Your task to perform on an android device: open app "Yahoo Mail" (install if not already installed), go to login, and select forgot password Image 0: 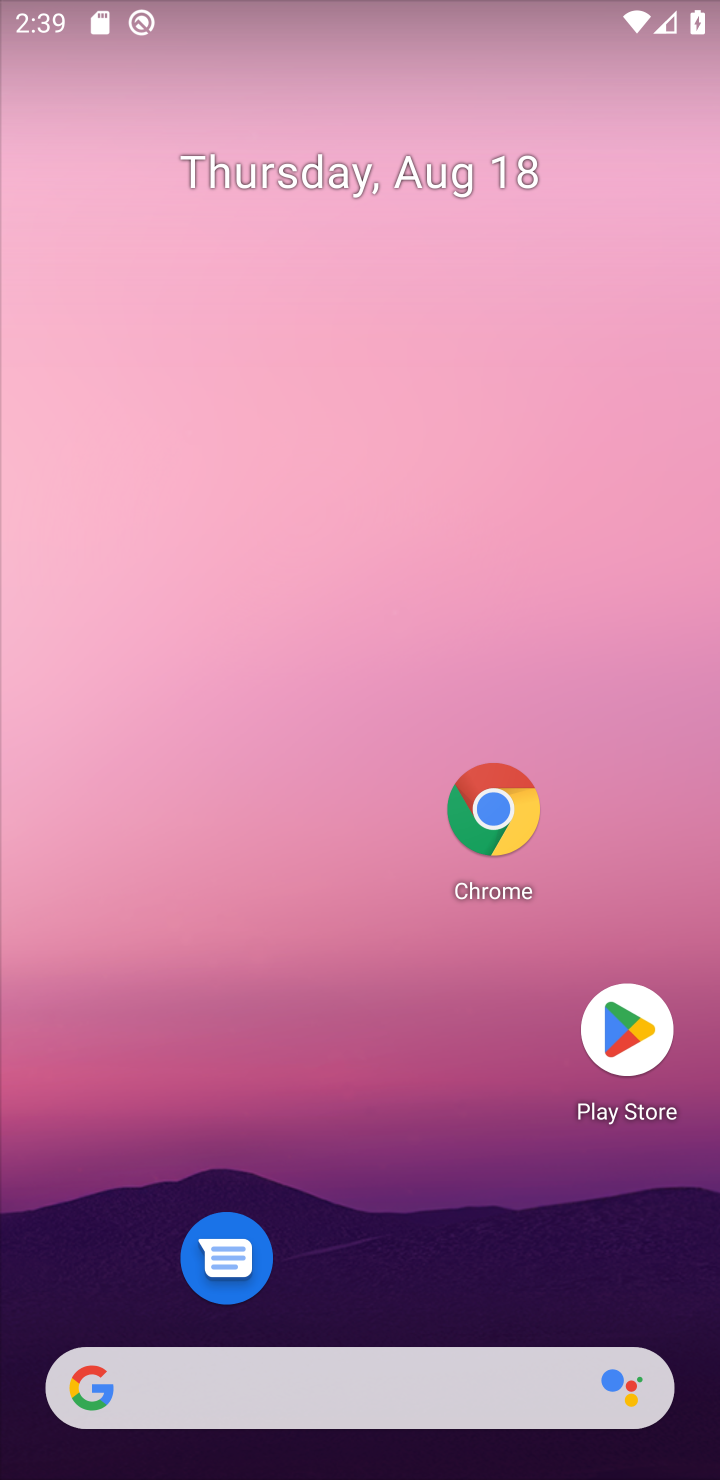
Step 0: drag from (310, 1076) to (236, 569)
Your task to perform on an android device: open app "Yahoo Mail" (install if not already installed), go to login, and select forgot password Image 1: 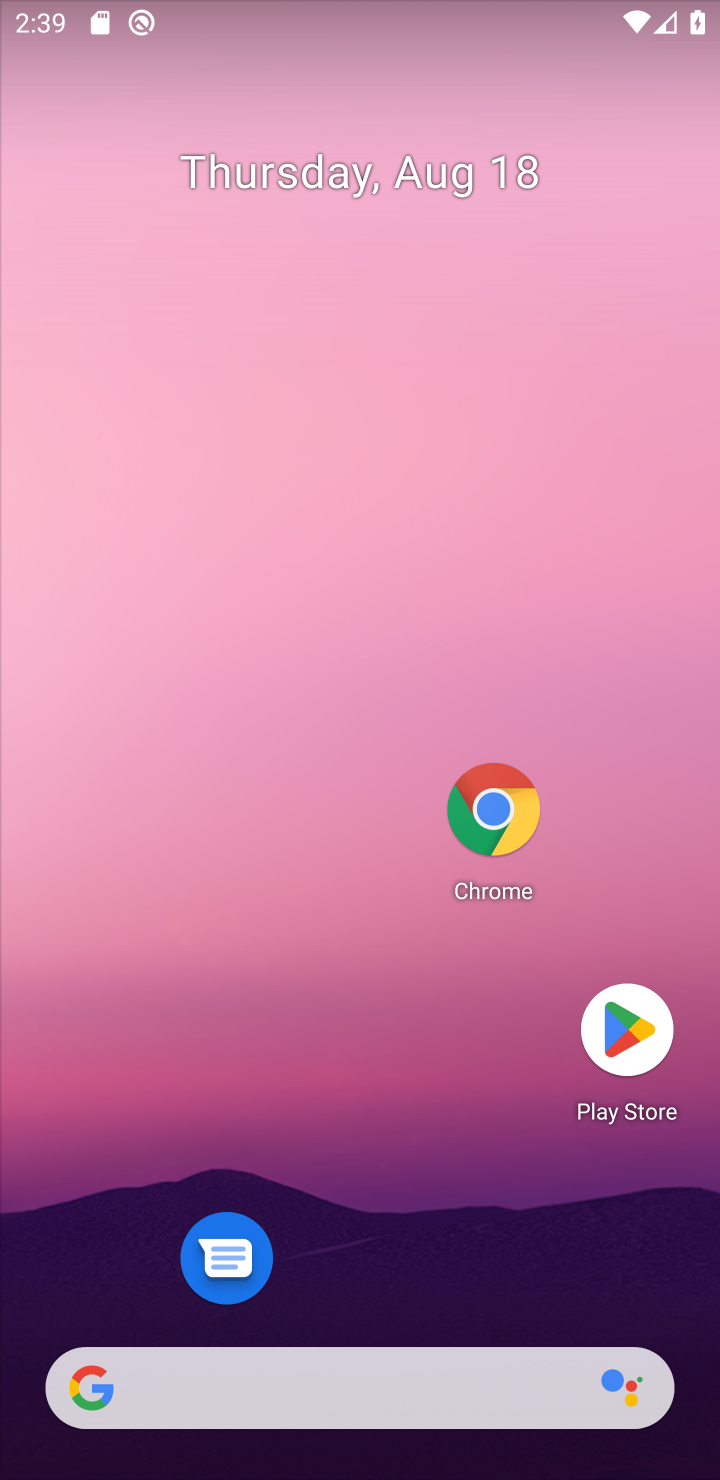
Step 1: drag from (386, 1308) to (373, 637)
Your task to perform on an android device: open app "Yahoo Mail" (install if not already installed), go to login, and select forgot password Image 2: 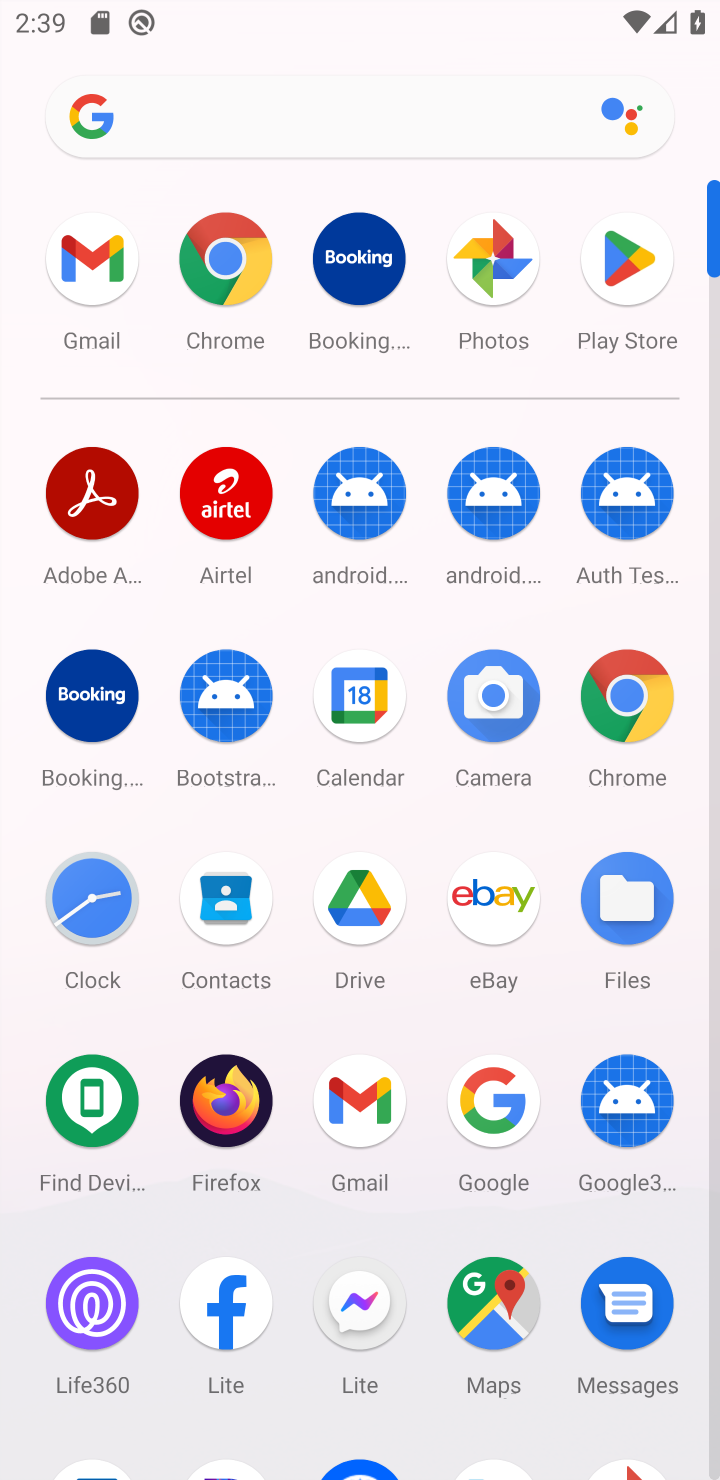
Step 2: press home button
Your task to perform on an android device: open app "Yahoo Mail" (install if not already installed), go to login, and select forgot password Image 3: 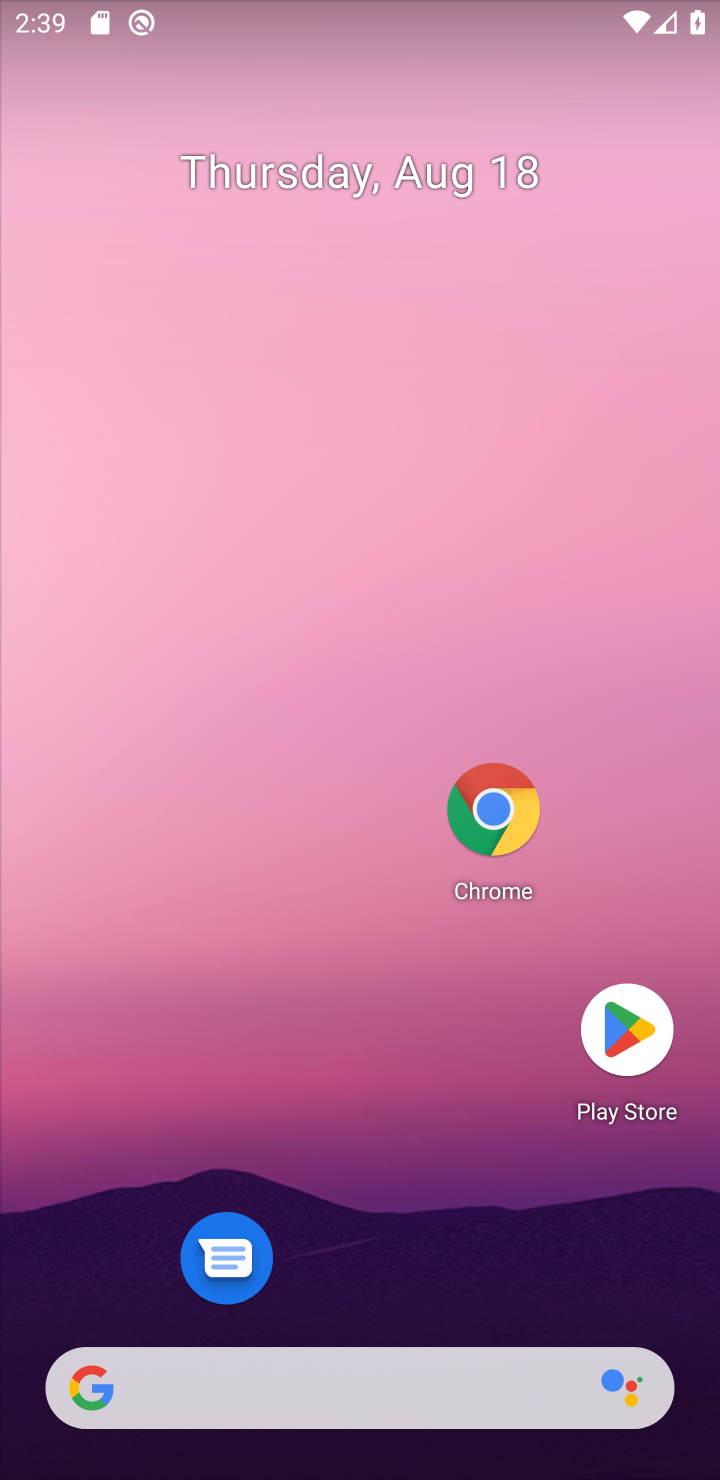
Step 3: click (640, 1025)
Your task to perform on an android device: open app "Yahoo Mail" (install if not already installed), go to login, and select forgot password Image 4: 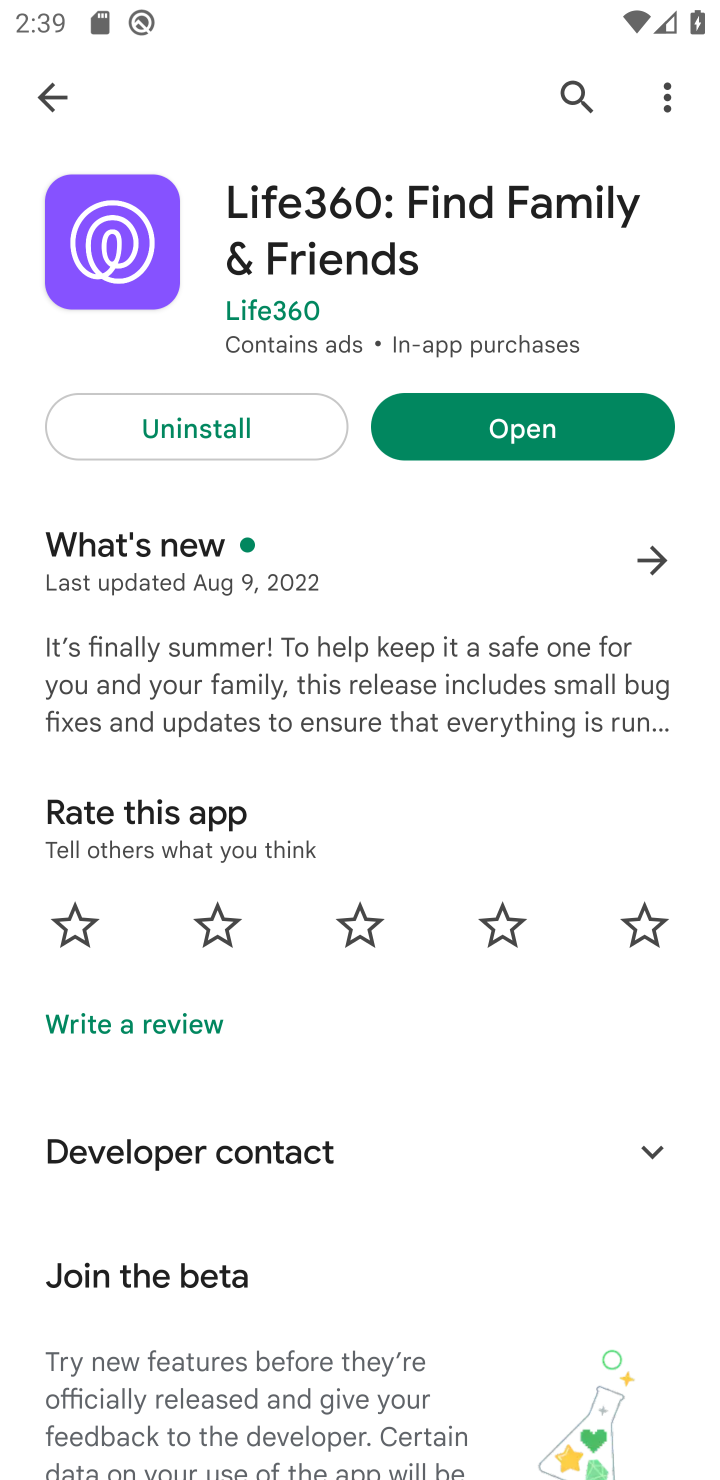
Step 4: click (20, 79)
Your task to perform on an android device: open app "Yahoo Mail" (install if not already installed), go to login, and select forgot password Image 5: 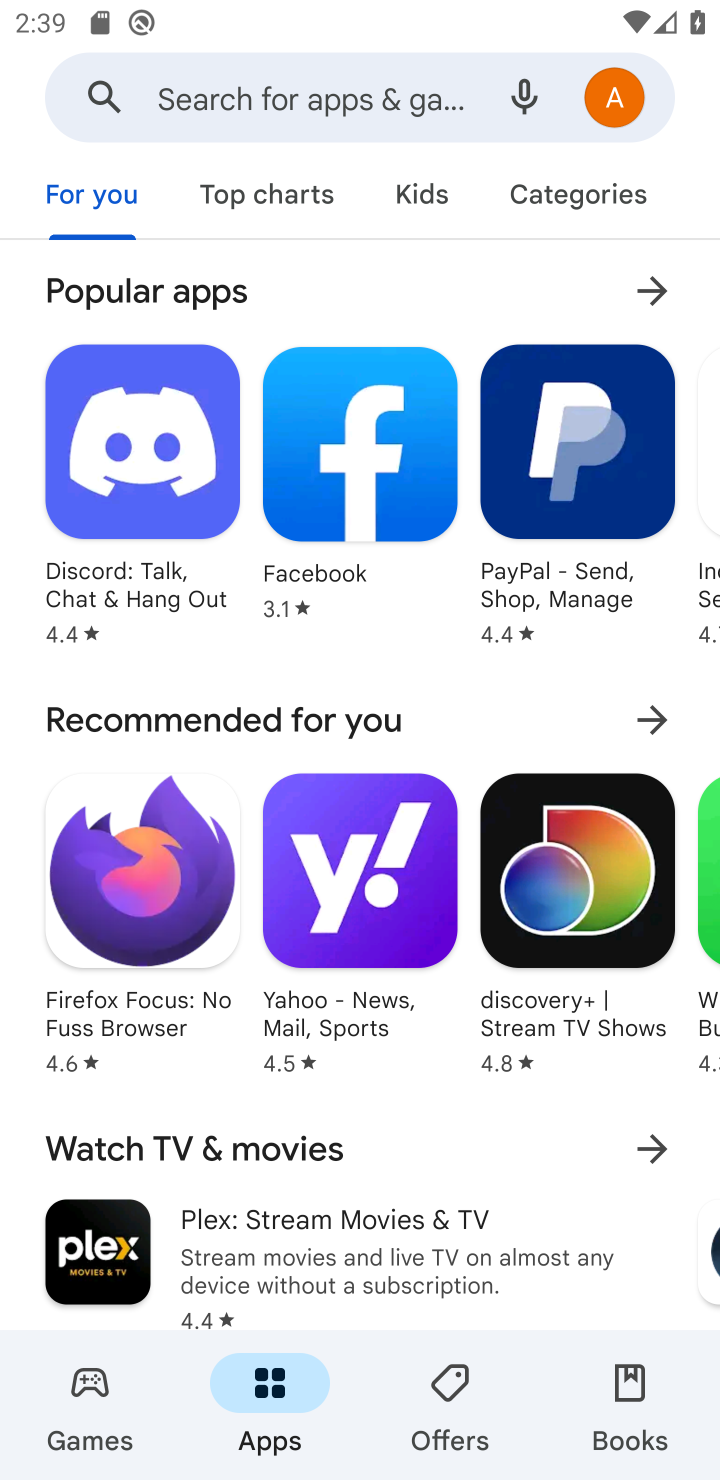
Step 5: click (361, 77)
Your task to perform on an android device: open app "Yahoo Mail" (install if not already installed), go to login, and select forgot password Image 6: 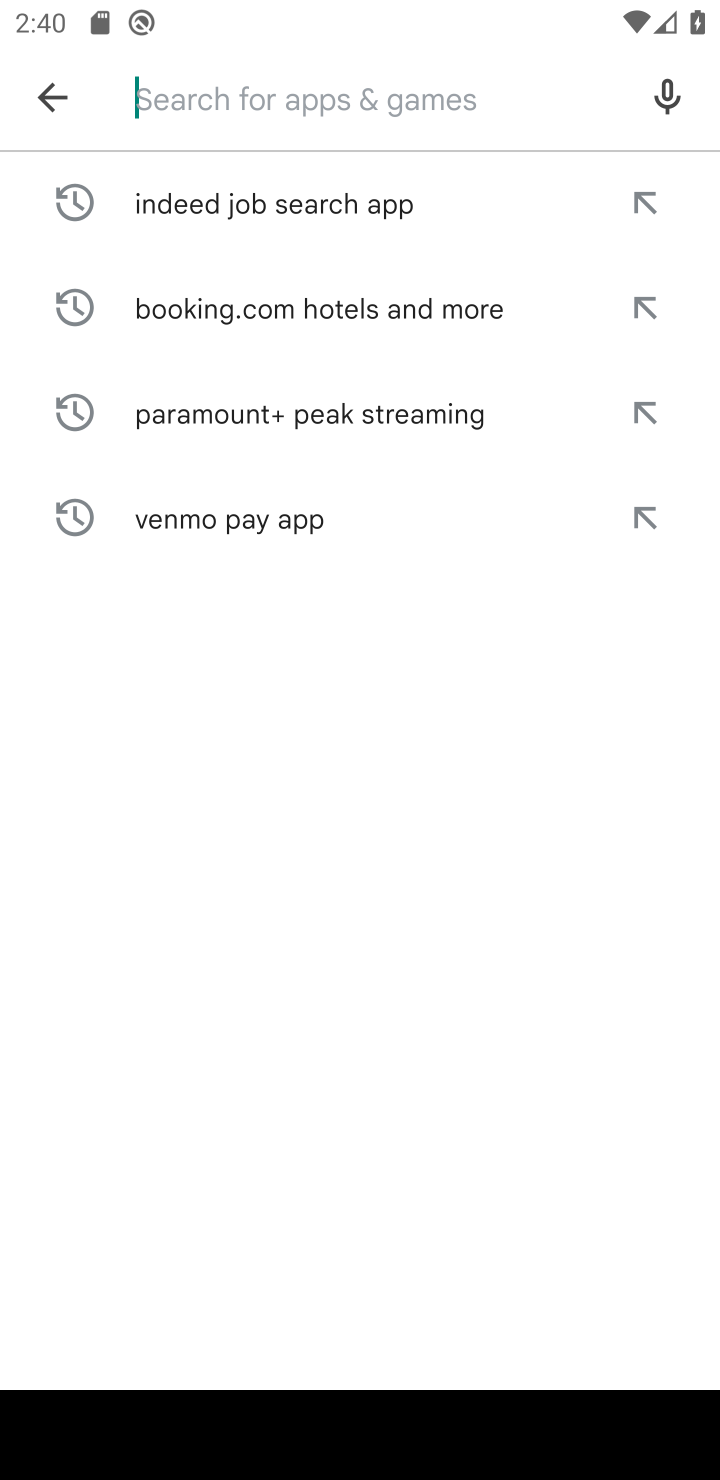
Step 6: type "Yahoo Mail" "
Your task to perform on an android device: open app "Yahoo Mail" (install if not already installed), go to login, and select forgot password Image 7: 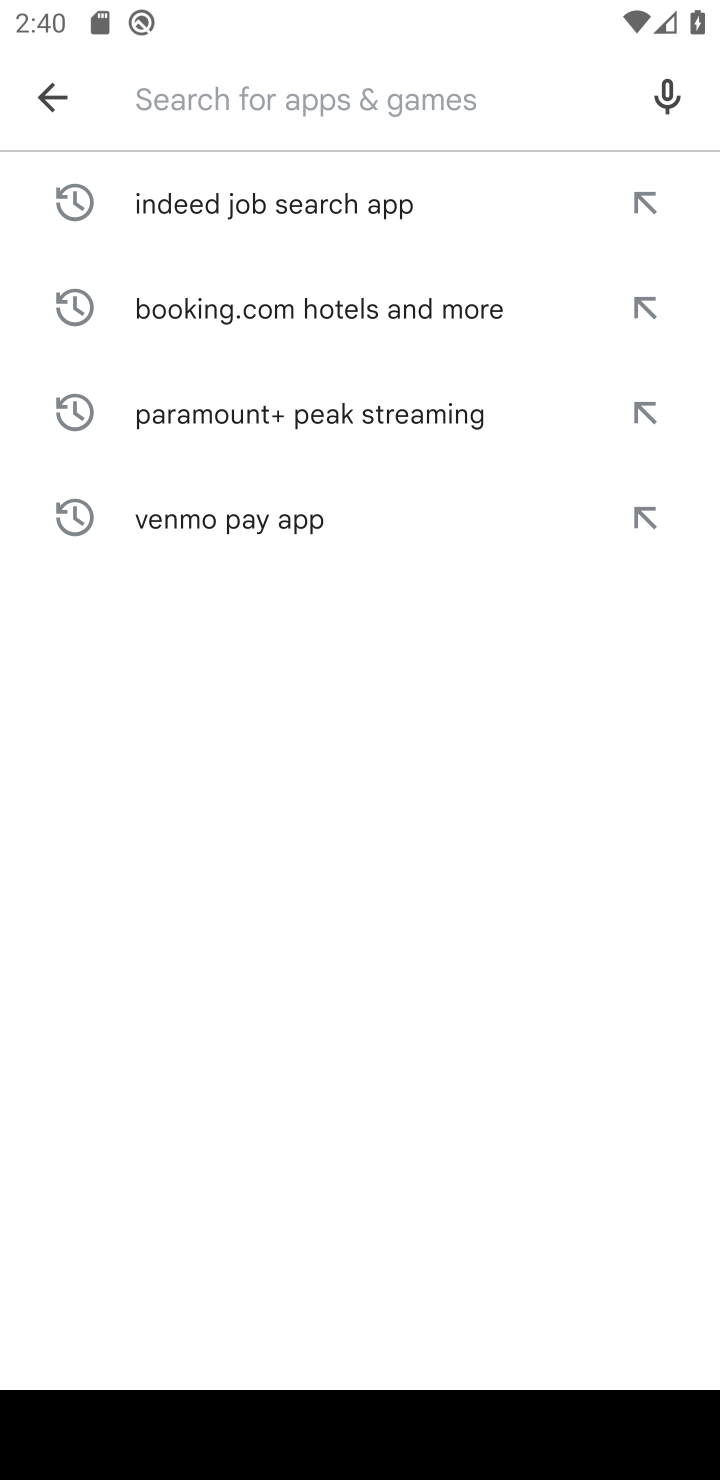
Step 7: click (291, 183)
Your task to perform on an android device: open app "Yahoo Mail" (install if not already installed), go to login, and select forgot password Image 8: 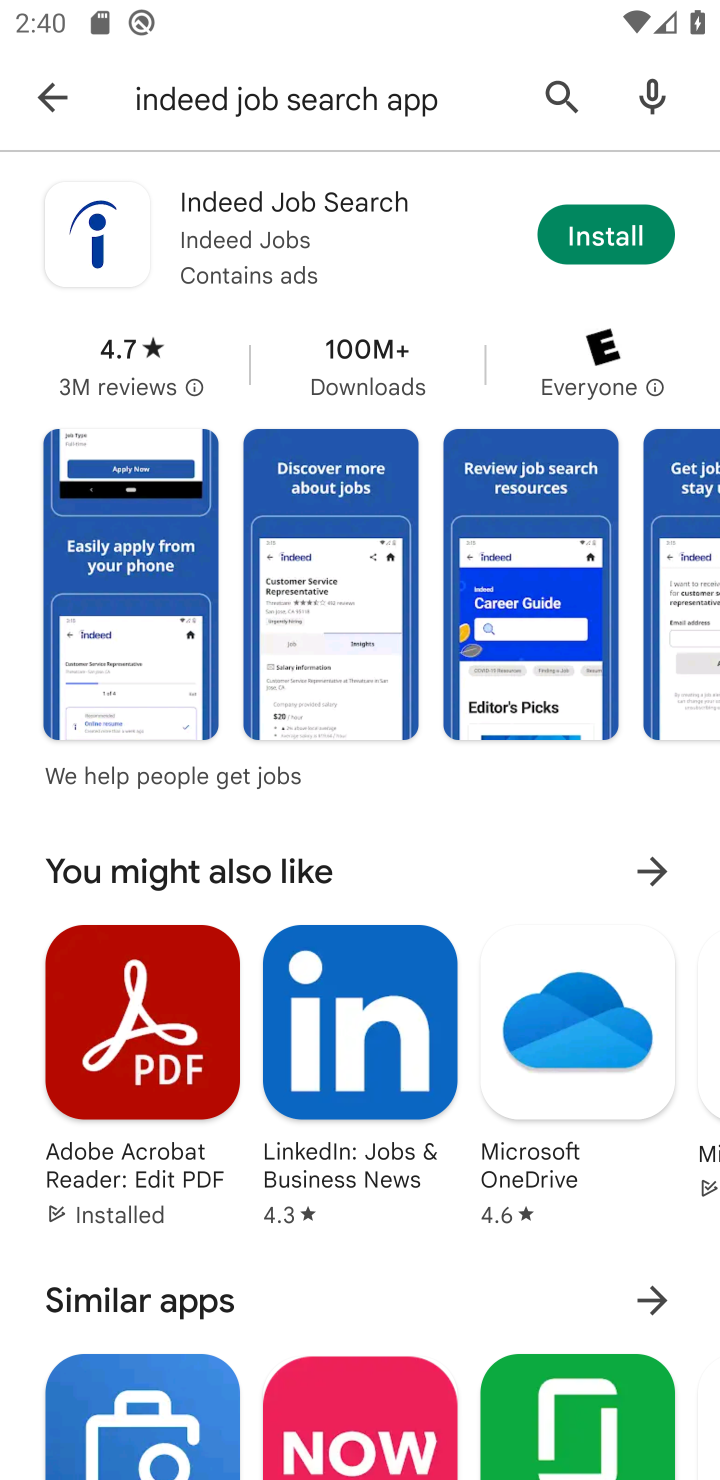
Step 8: click (561, 83)
Your task to perform on an android device: open app "Yahoo Mail" (install if not already installed), go to login, and select forgot password Image 9: 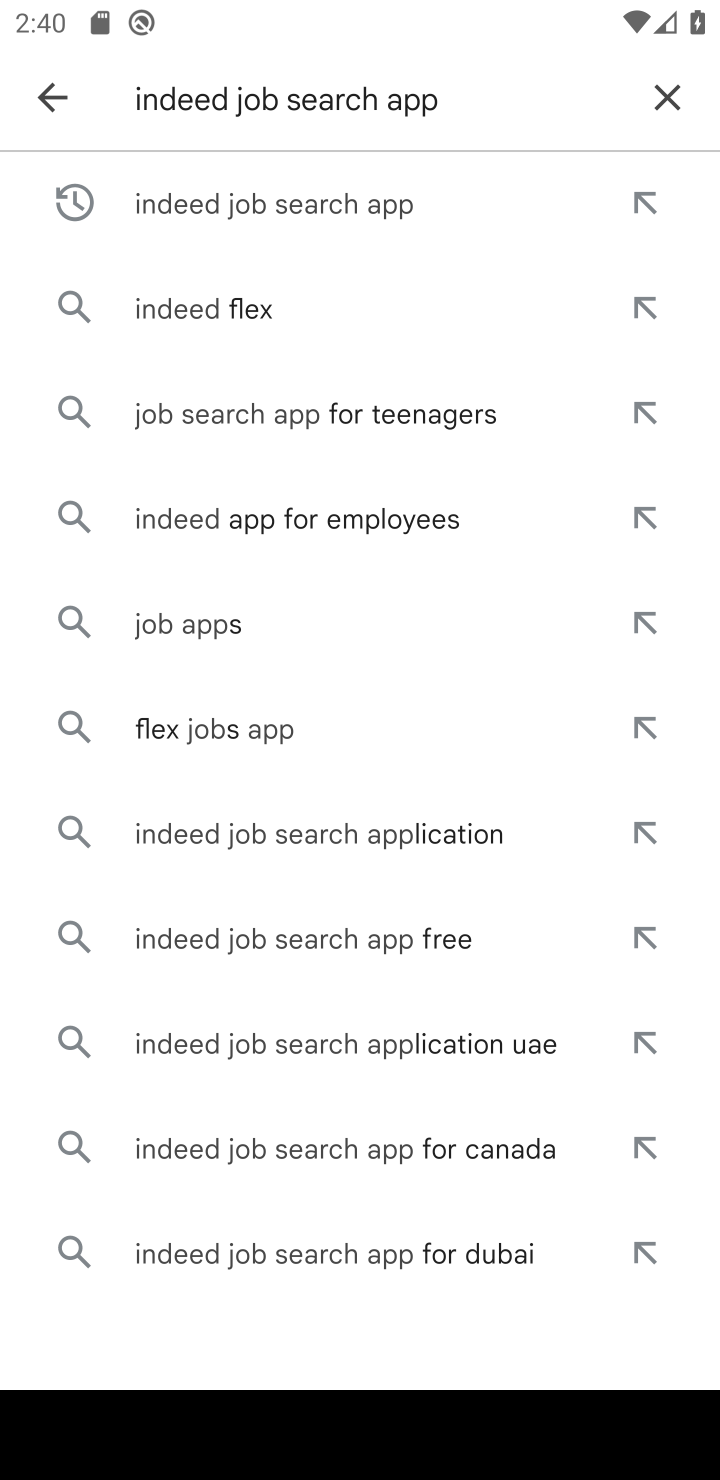
Step 9: click (657, 102)
Your task to perform on an android device: open app "Yahoo Mail" (install if not already installed), go to login, and select forgot password Image 10: 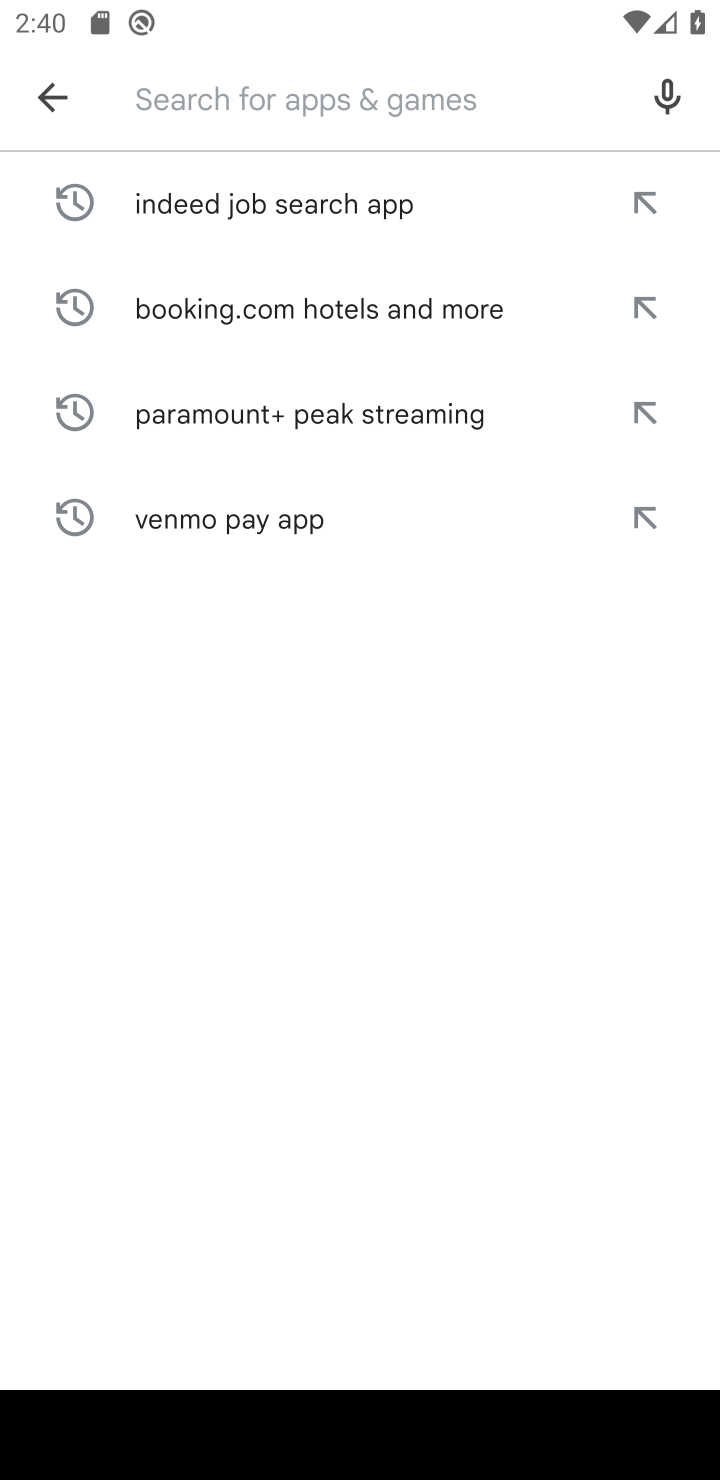
Step 10: click (253, 88)
Your task to perform on an android device: open app "Yahoo Mail" (install if not already installed), go to login, and select forgot password Image 11: 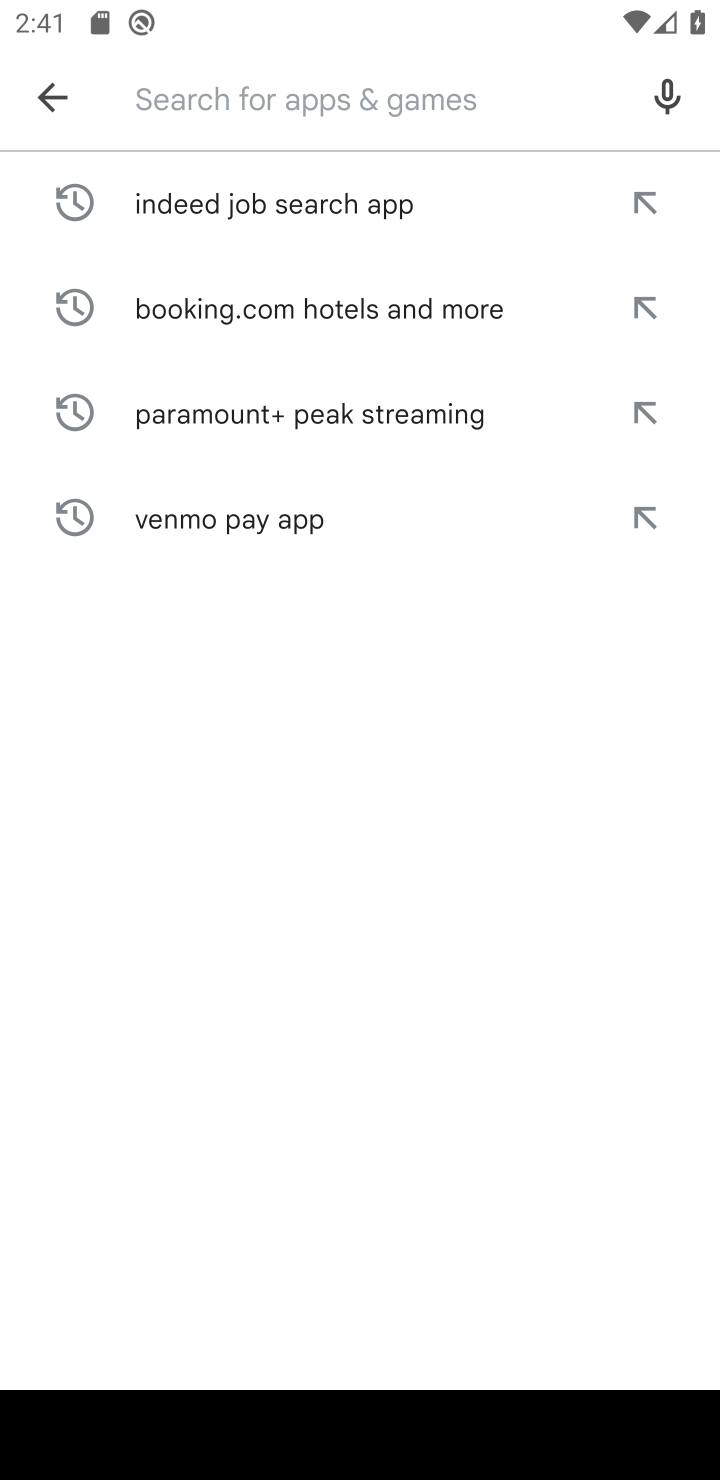
Step 11: type "yahoo mail "
Your task to perform on an android device: open app "Yahoo Mail" (install if not already installed), go to login, and select forgot password Image 12: 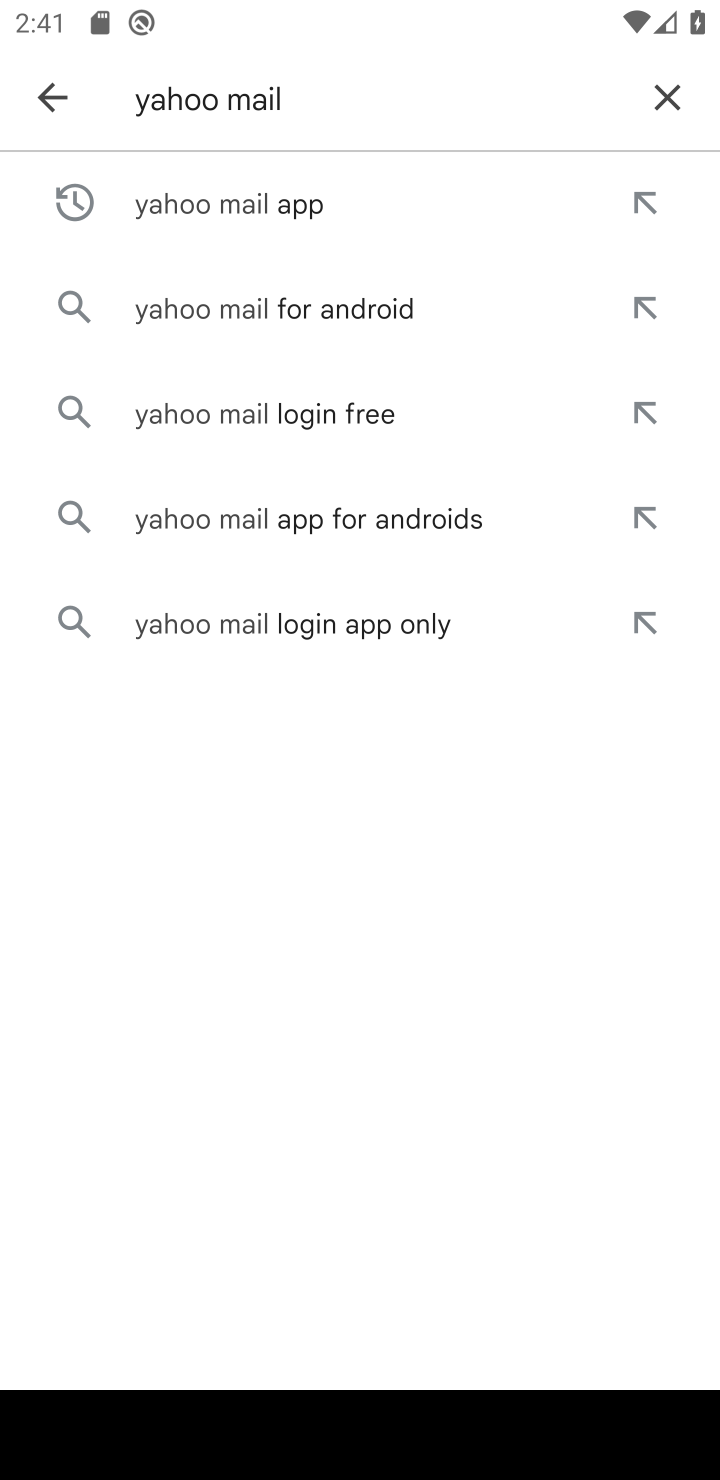
Step 12: click (270, 199)
Your task to perform on an android device: open app "Yahoo Mail" (install if not already installed), go to login, and select forgot password Image 13: 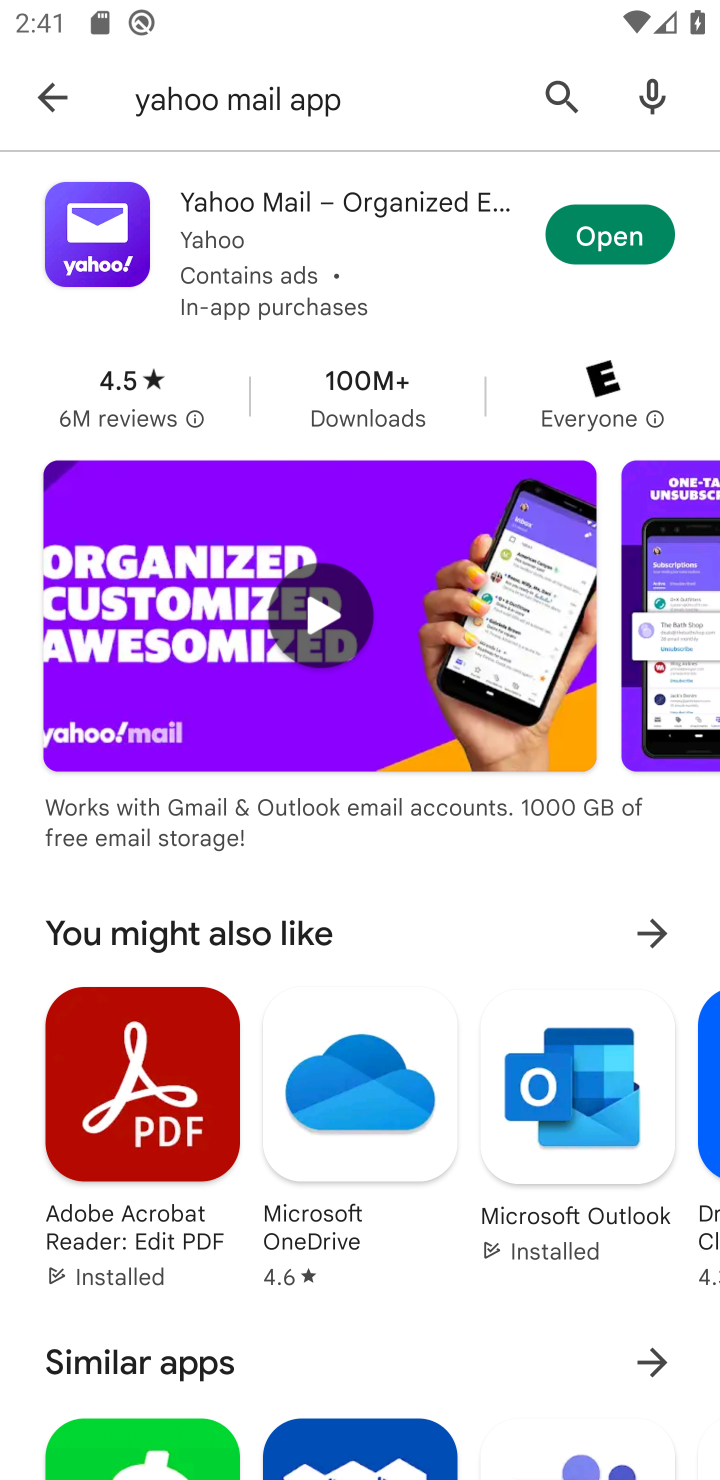
Step 13: click (613, 225)
Your task to perform on an android device: open app "Yahoo Mail" (install if not already installed), go to login, and select forgot password Image 14: 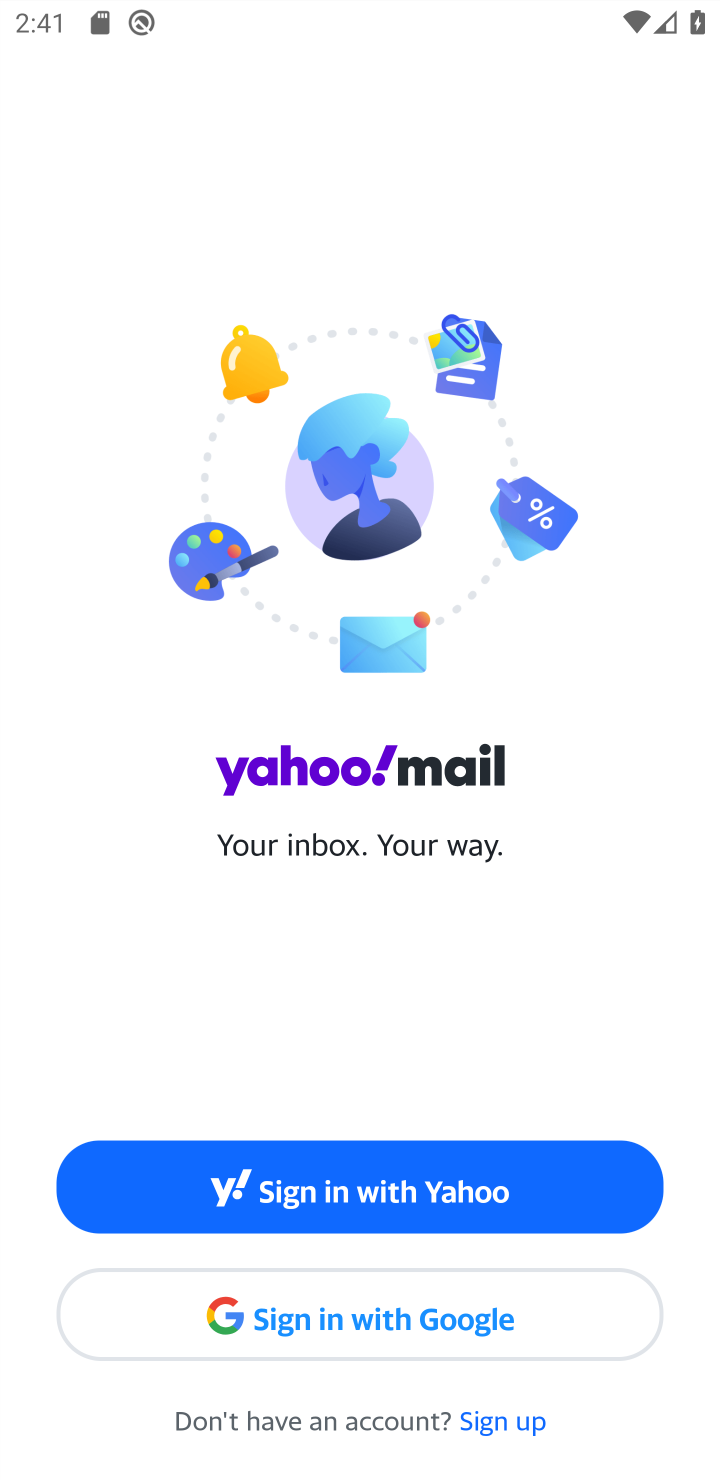
Step 14: task complete